Your task to perform on an android device: Open settings on Google Maps Image 0: 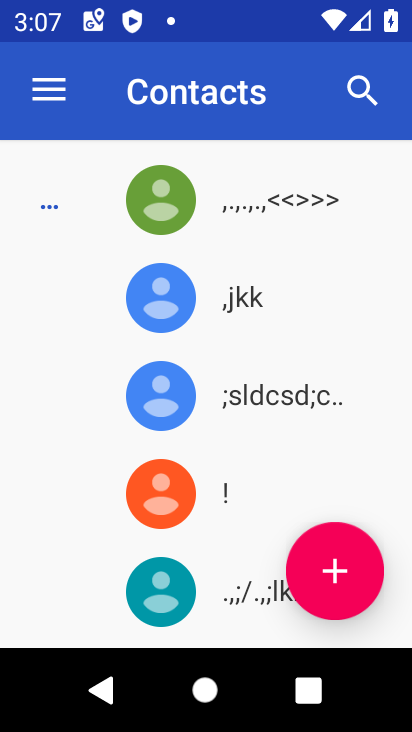
Step 0: press home button
Your task to perform on an android device: Open settings on Google Maps Image 1: 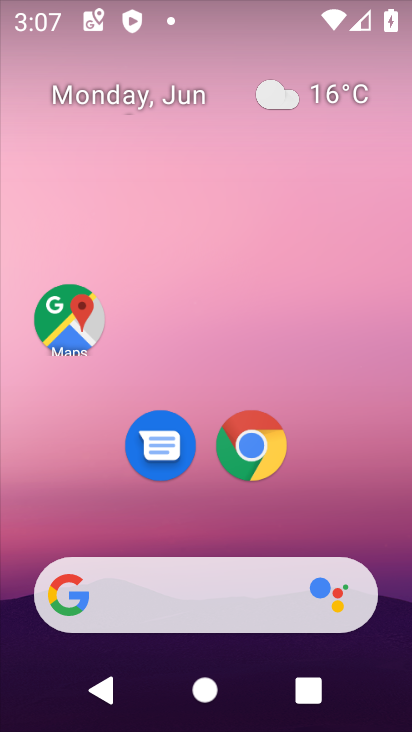
Step 1: click (76, 321)
Your task to perform on an android device: Open settings on Google Maps Image 2: 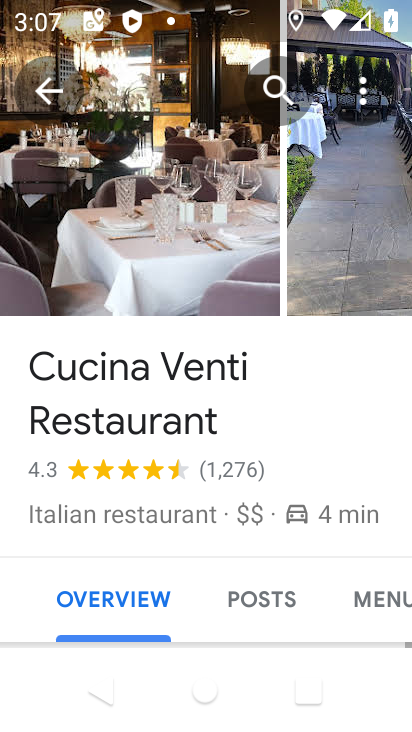
Step 2: click (43, 76)
Your task to perform on an android device: Open settings on Google Maps Image 3: 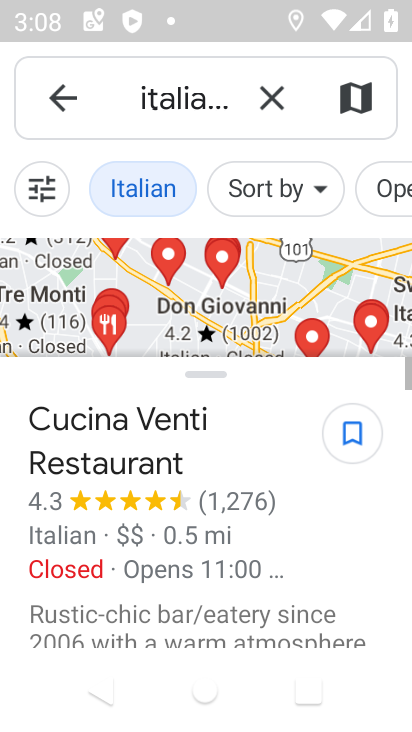
Step 3: click (41, 76)
Your task to perform on an android device: Open settings on Google Maps Image 4: 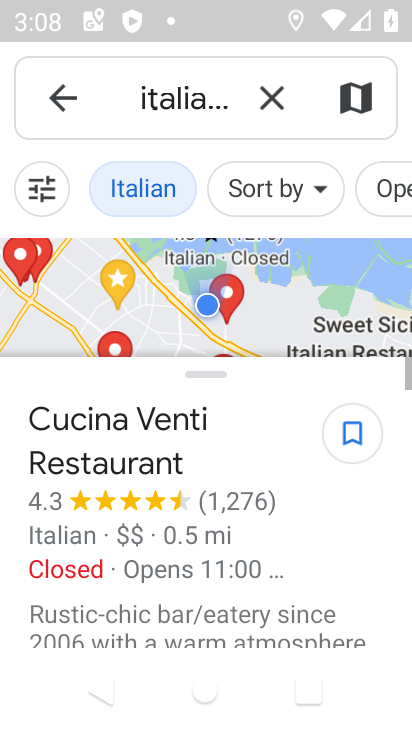
Step 4: click (55, 86)
Your task to perform on an android device: Open settings on Google Maps Image 5: 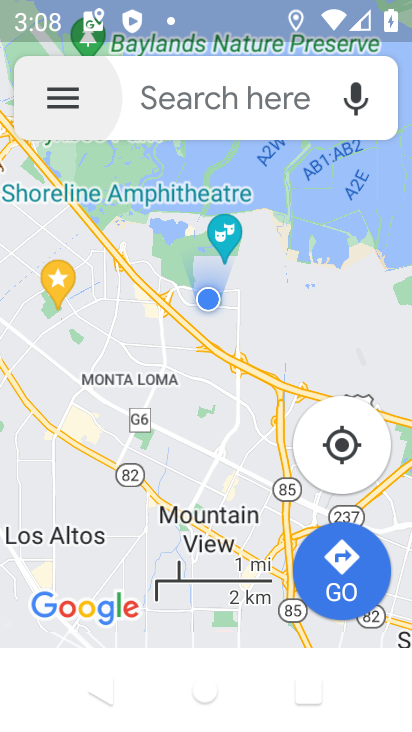
Step 5: click (56, 85)
Your task to perform on an android device: Open settings on Google Maps Image 6: 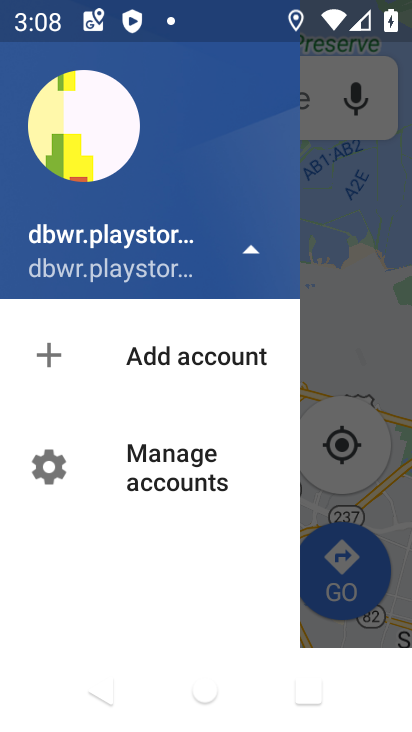
Step 6: click (232, 245)
Your task to perform on an android device: Open settings on Google Maps Image 7: 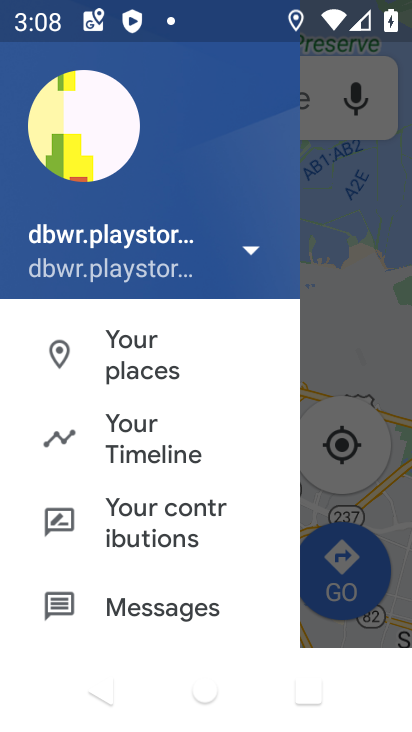
Step 7: drag from (111, 580) to (121, 342)
Your task to perform on an android device: Open settings on Google Maps Image 8: 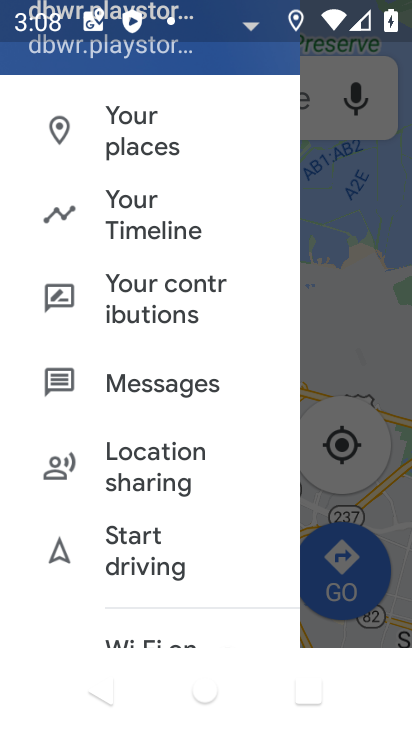
Step 8: drag from (160, 585) to (144, 315)
Your task to perform on an android device: Open settings on Google Maps Image 9: 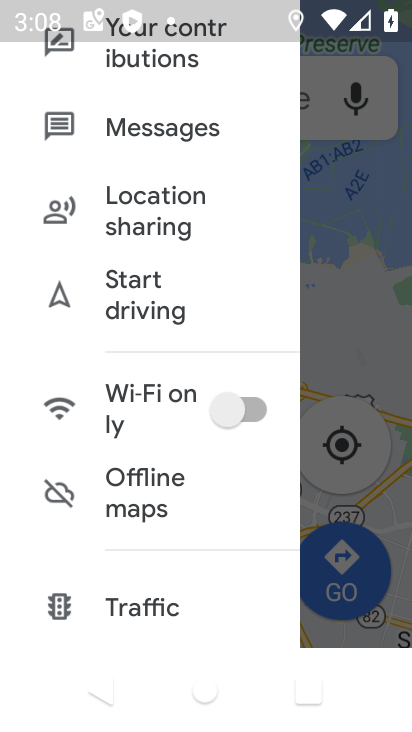
Step 9: drag from (151, 553) to (158, 181)
Your task to perform on an android device: Open settings on Google Maps Image 10: 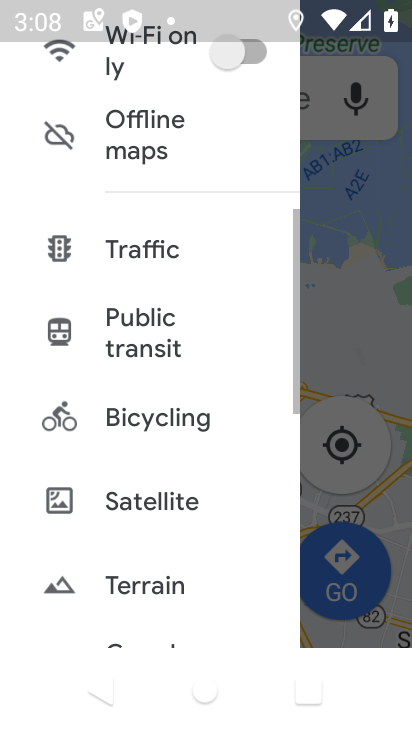
Step 10: drag from (170, 555) to (189, 34)
Your task to perform on an android device: Open settings on Google Maps Image 11: 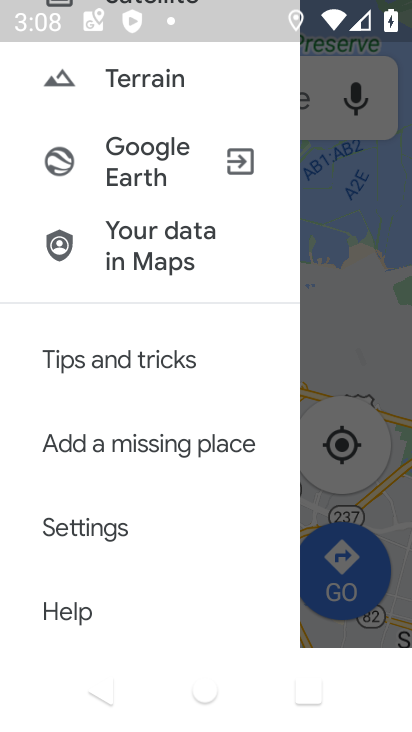
Step 11: click (128, 519)
Your task to perform on an android device: Open settings on Google Maps Image 12: 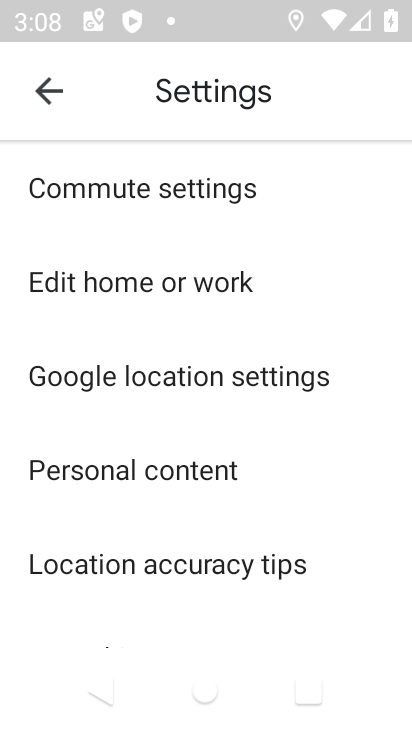
Step 12: task complete